Your task to perform on an android device: turn off smart reply in the gmail app Image 0: 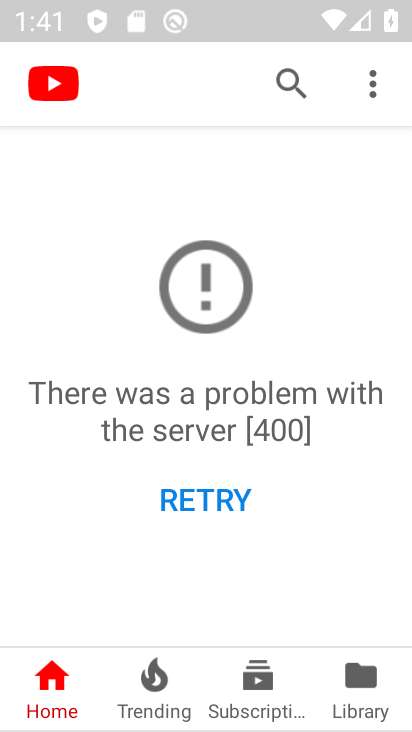
Step 0: press back button
Your task to perform on an android device: turn off smart reply in the gmail app Image 1: 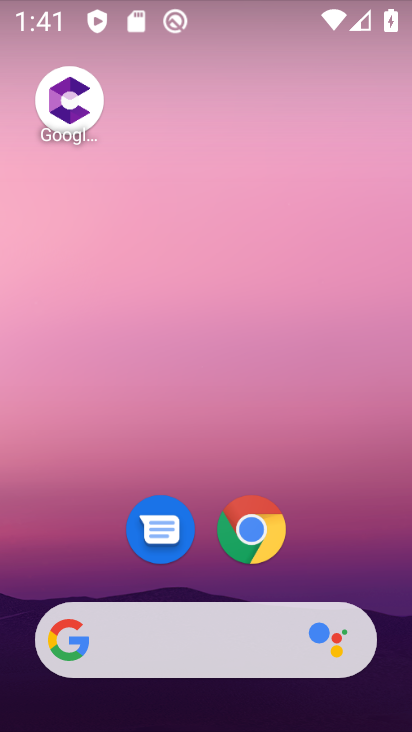
Step 1: drag from (55, 549) to (411, 513)
Your task to perform on an android device: turn off smart reply in the gmail app Image 2: 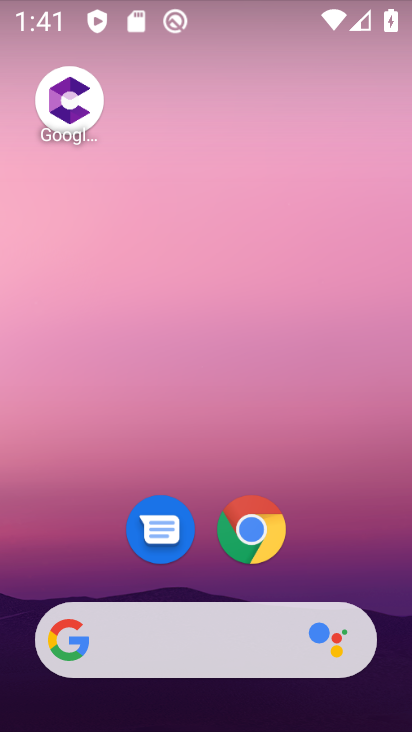
Step 2: click (343, 579)
Your task to perform on an android device: turn off smart reply in the gmail app Image 3: 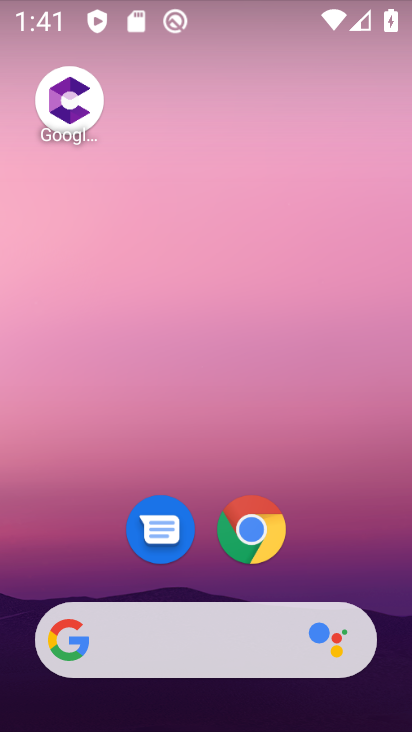
Step 3: drag from (29, 634) to (347, 46)
Your task to perform on an android device: turn off smart reply in the gmail app Image 4: 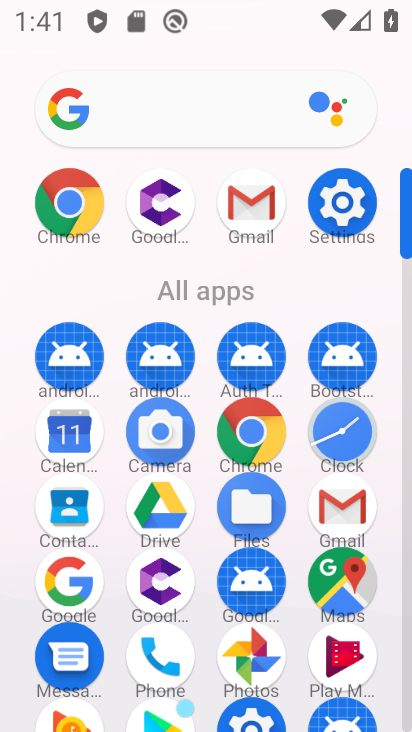
Step 4: click (240, 204)
Your task to perform on an android device: turn off smart reply in the gmail app Image 5: 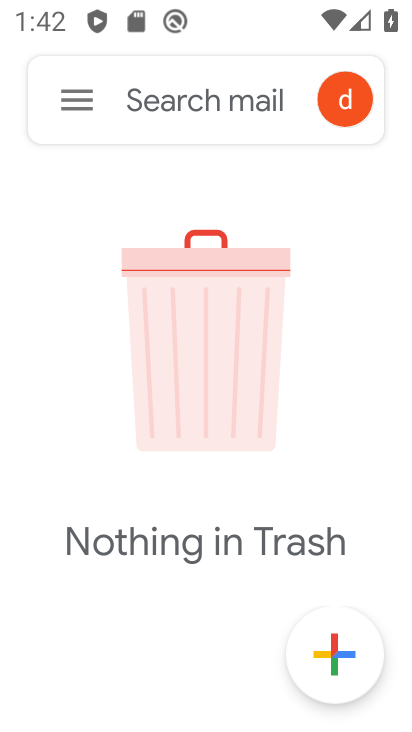
Step 5: click (61, 101)
Your task to perform on an android device: turn off smart reply in the gmail app Image 6: 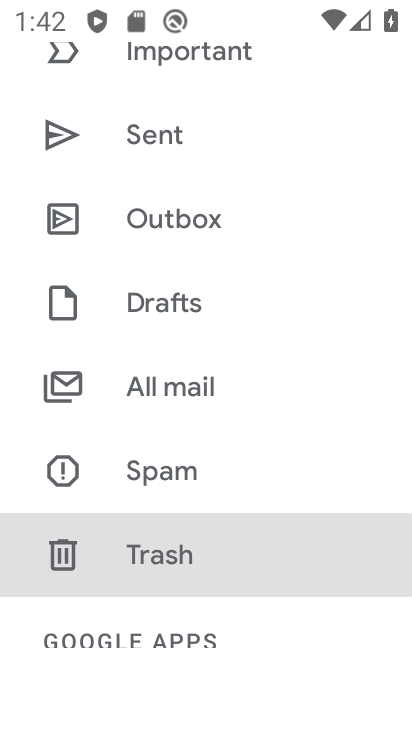
Step 6: drag from (120, 638) to (344, 66)
Your task to perform on an android device: turn off smart reply in the gmail app Image 7: 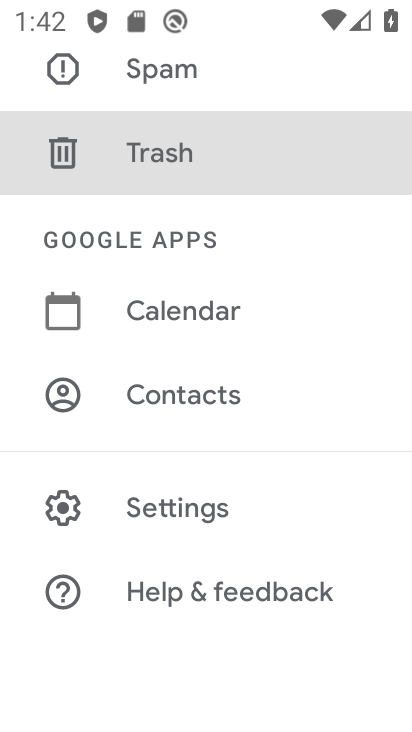
Step 7: click (151, 504)
Your task to perform on an android device: turn off smart reply in the gmail app Image 8: 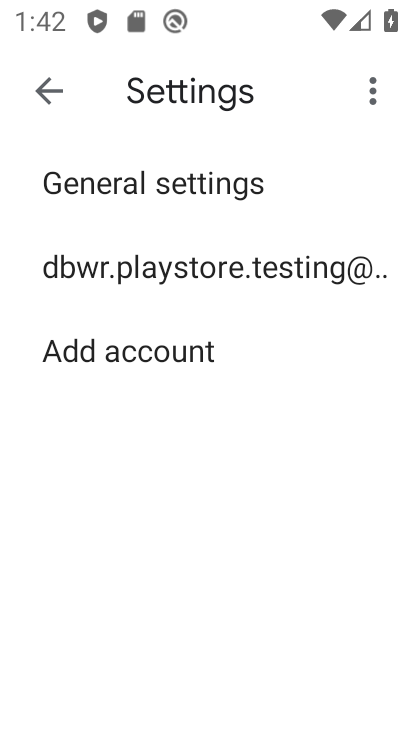
Step 8: click (123, 280)
Your task to perform on an android device: turn off smart reply in the gmail app Image 9: 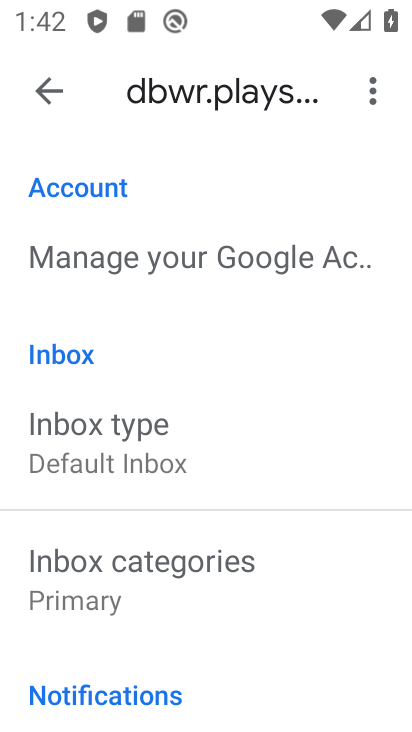
Step 9: drag from (134, 662) to (320, 110)
Your task to perform on an android device: turn off smart reply in the gmail app Image 10: 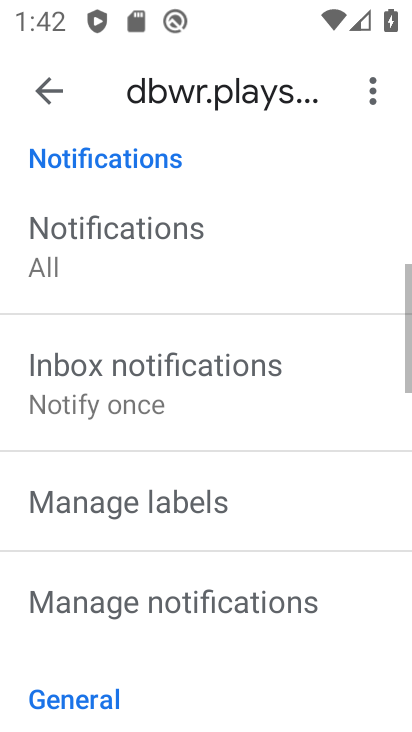
Step 10: drag from (124, 660) to (298, 110)
Your task to perform on an android device: turn off smart reply in the gmail app Image 11: 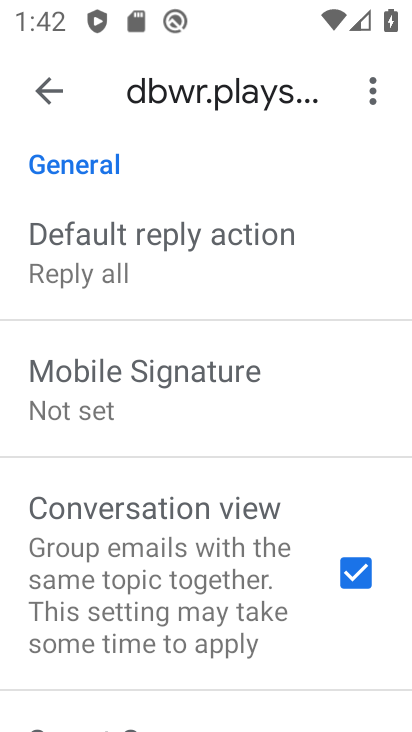
Step 11: drag from (119, 636) to (338, 110)
Your task to perform on an android device: turn off smart reply in the gmail app Image 12: 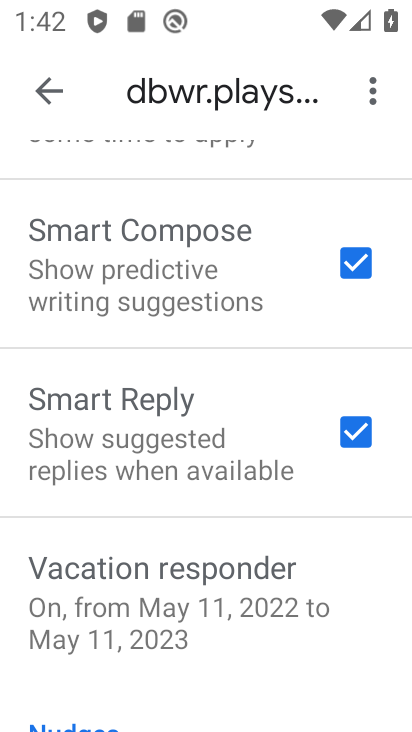
Step 12: click (349, 434)
Your task to perform on an android device: turn off smart reply in the gmail app Image 13: 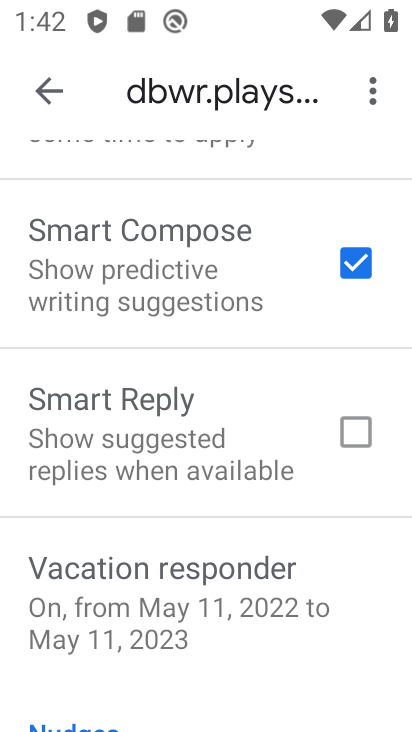
Step 13: task complete